Your task to perform on an android device: Toggle the flashlight Image 0: 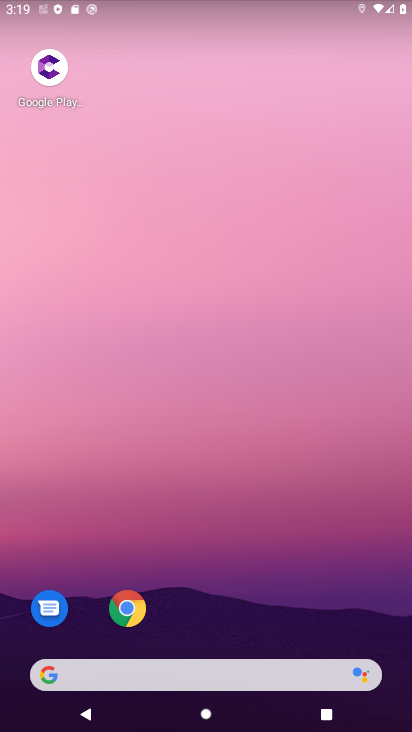
Step 0: drag from (375, 0) to (350, 548)
Your task to perform on an android device: Toggle the flashlight Image 1: 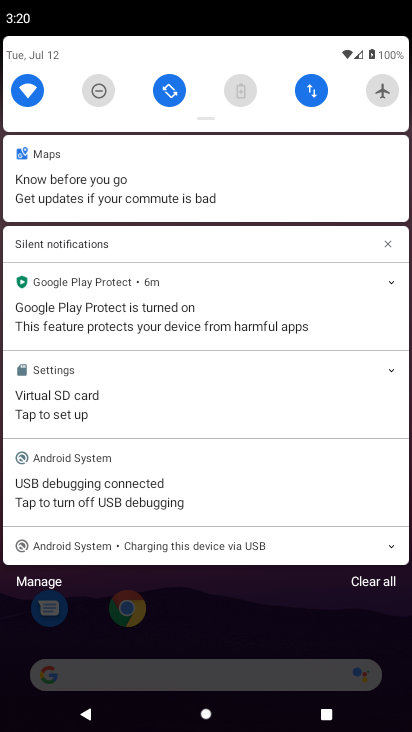
Step 1: task complete